Your task to perform on an android device: What's on my calendar tomorrow? Image 0: 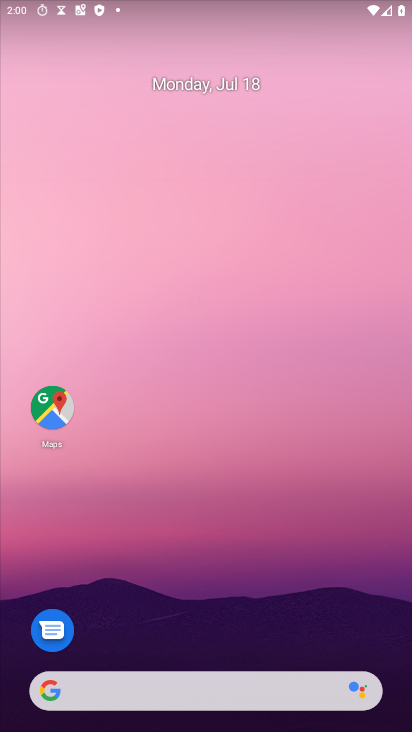
Step 0: drag from (222, 620) to (163, 40)
Your task to perform on an android device: What's on my calendar tomorrow? Image 1: 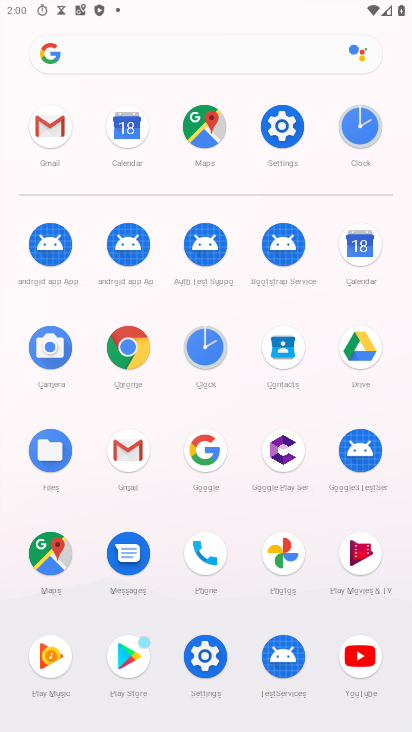
Step 1: click (362, 255)
Your task to perform on an android device: What's on my calendar tomorrow? Image 2: 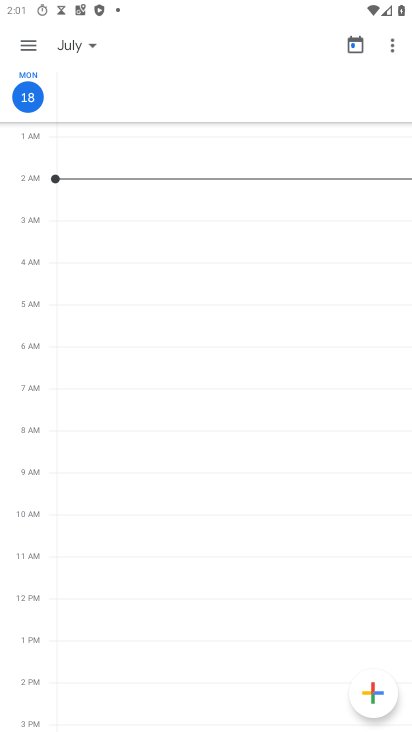
Step 2: click (90, 48)
Your task to perform on an android device: What's on my calendar tomorrow? Image 3: 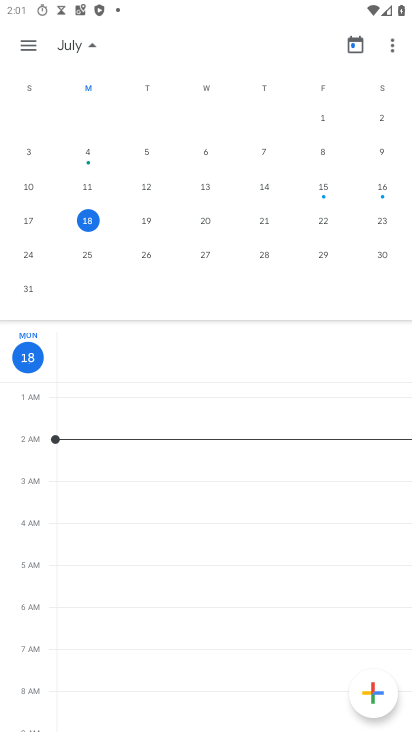
Step 3: click (150, 223)
Your task to perform on an android device: What's on my calendar tomorrow? Image 4: 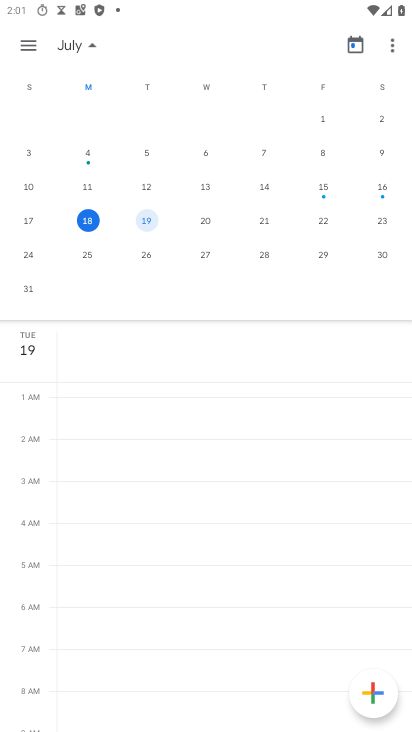
Step 4: task complete